Your task to perform on an android device: turn on showing notifications on the lock screen Image 0: 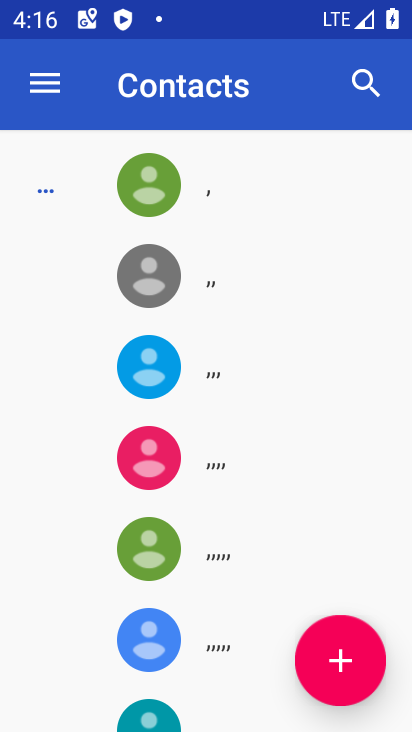
Step 0: press home button
Your task to perform on an android device: turn on showing notifications on the lock screen Image 1: 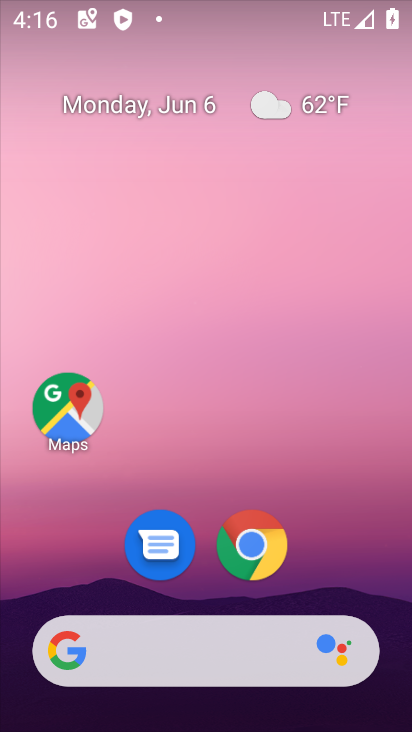
Step 1: drag from (208, 719) to (208, 116)
Your task to perform on an android device: turn on showing notifications on the lock screen Image 2: 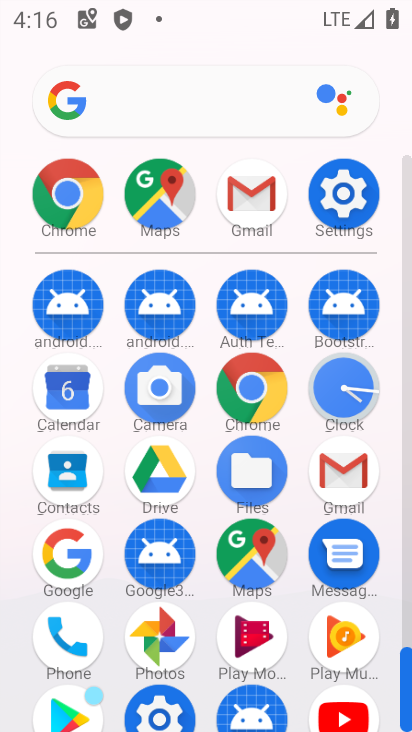
Step 2: click (337, 199)
Your task to perform on an android device: turn on showing notifications on the lock screen Image 3: 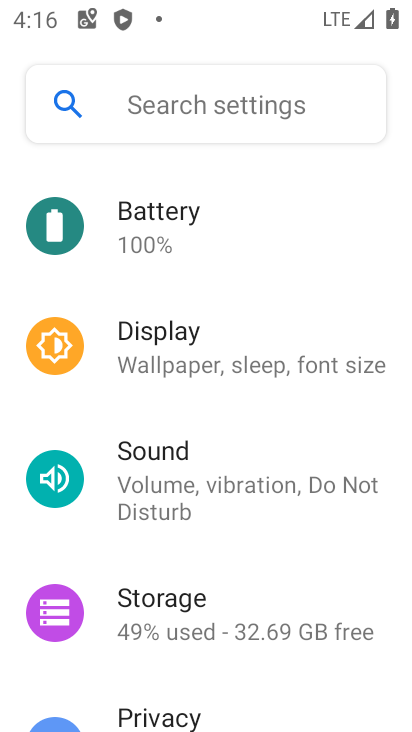
Step 3: drag from (235, 220) to (227, 480)
Your task to perform on an android device: turn on showing notifications on the lock screen Image 4: 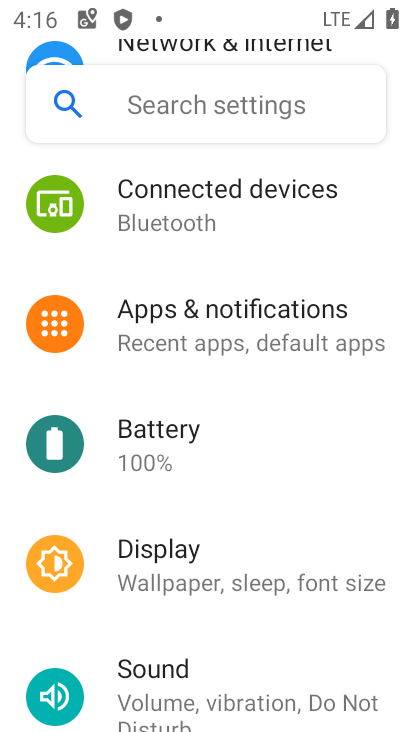
Step 4: click (204, 327)
Your task to perform on an android device: turn on showing notifications on the lock screen Image 5: 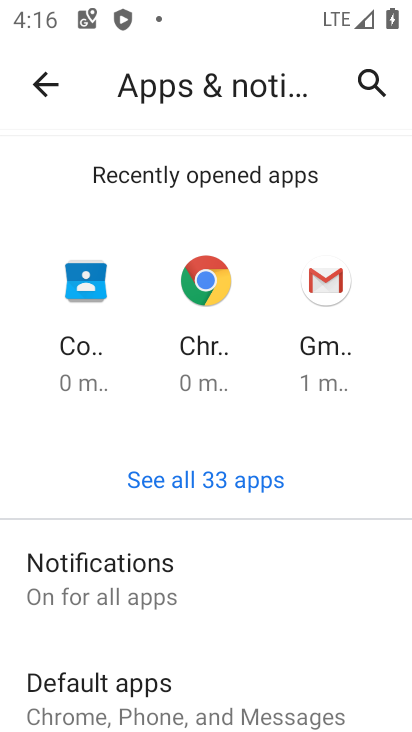
Step 5: click (44, 577)
Your task to perform on an android device: turn on showing notifications on the lock screen Image 6: 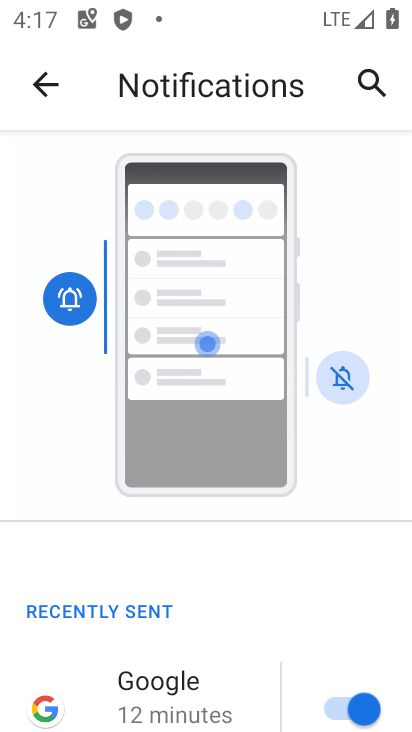
Step 6: task complete